Your task to perform on an android device: Open Yahoo.com Image 0: 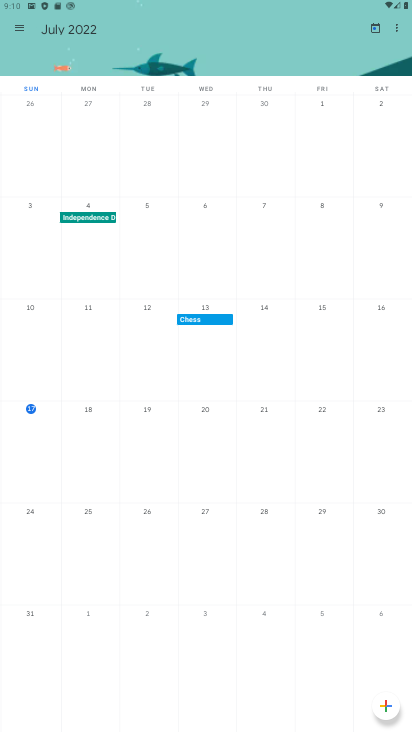
Step 0: press home button
Your task to perform on an android device: Open Yahoo.com Image 1: 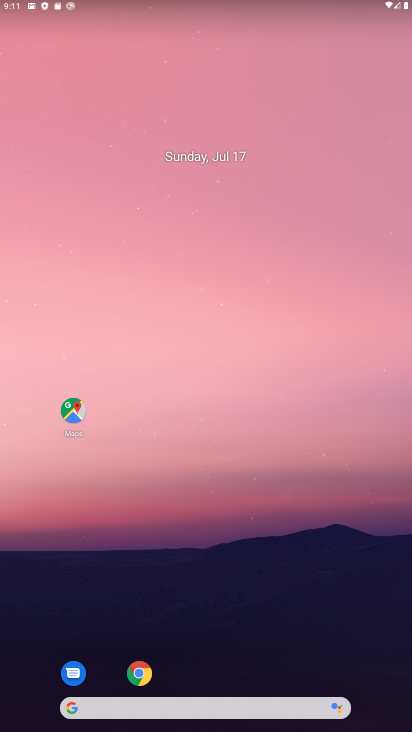
Step 1: click (137, 670)
Your task to perform on an android device: Open Yahoo.com Image 2: 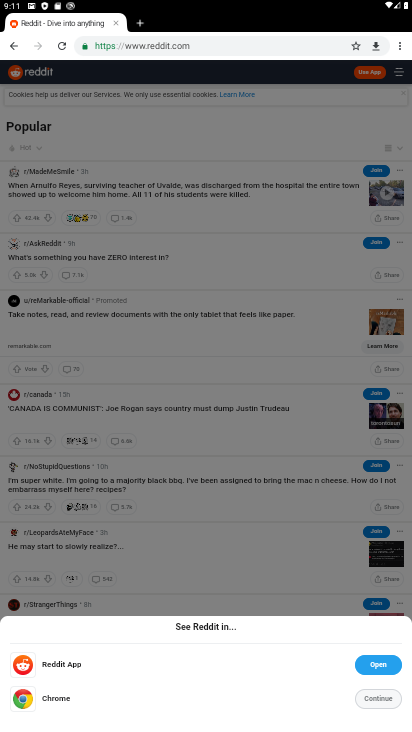
Step 2: click (384, 698)
Your task to perform on an android device: Open Yahoo.com Image 3: 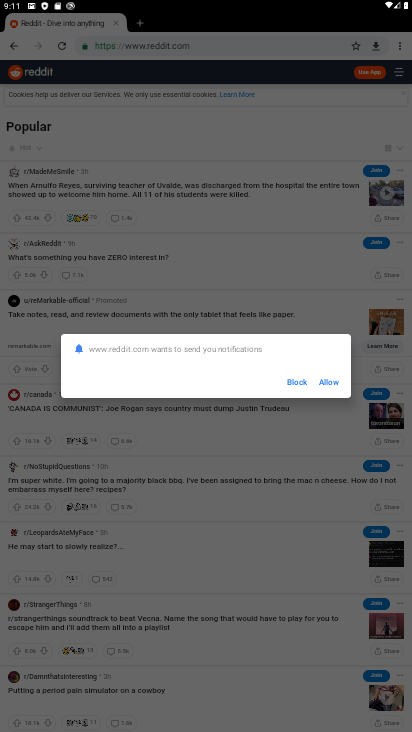
Step 3: click (319, 377)
Your task to perform on an android device: Open Yahoo.com Image 4: 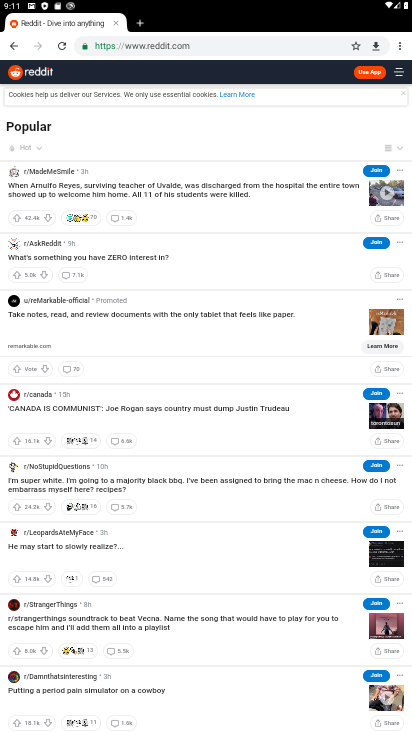
Step 4: click (403, 37)
Your task to perform on an android device: Open Yahoo.com Image 5: 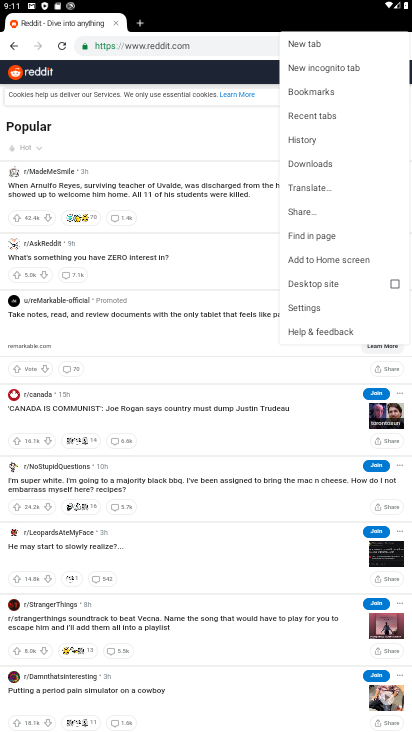
Step 5: click (318, 44)
Your task to perform on an android device: Open Yahoo.com Image 6: 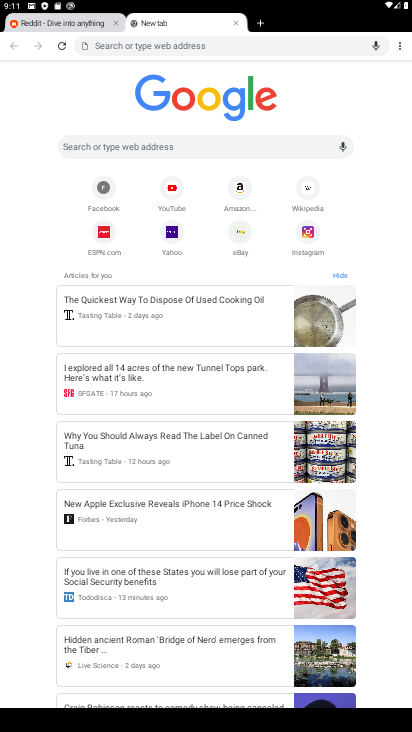
Step 6: click (167, 230)
Your task to perform on an android device: Open Yahoo.com Image 7: 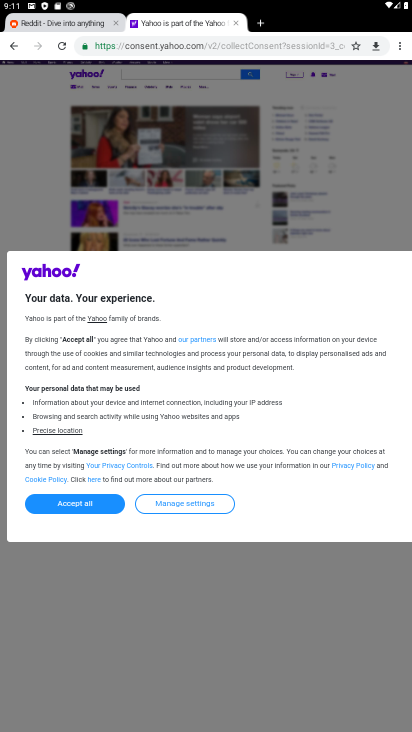
Step 7: click (86, 498)
Your task to perform on an android device: Open Yahoo.com Image 8: 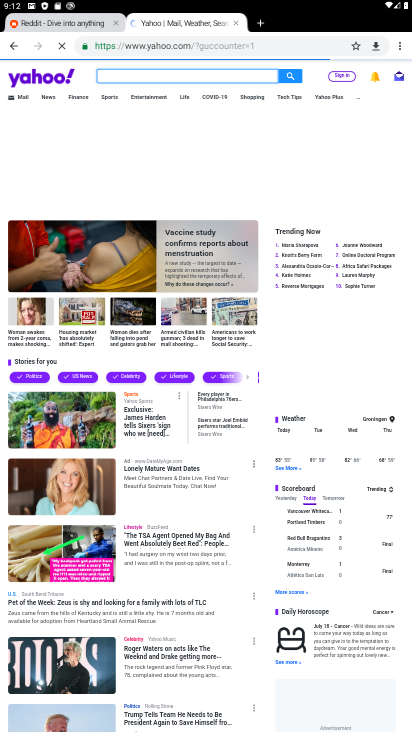
Step 8: task complete